Your task to perform on an android device: star an email in the gmail app Image 0: 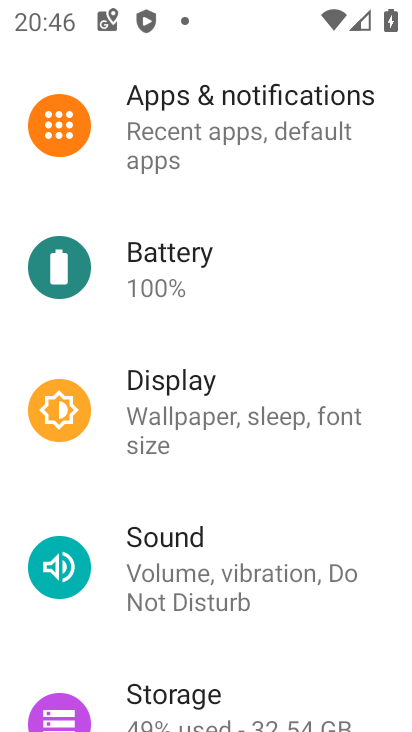
Step 0: press home button
Your task to perform on an android device: star an email in the gmail app Image 1: 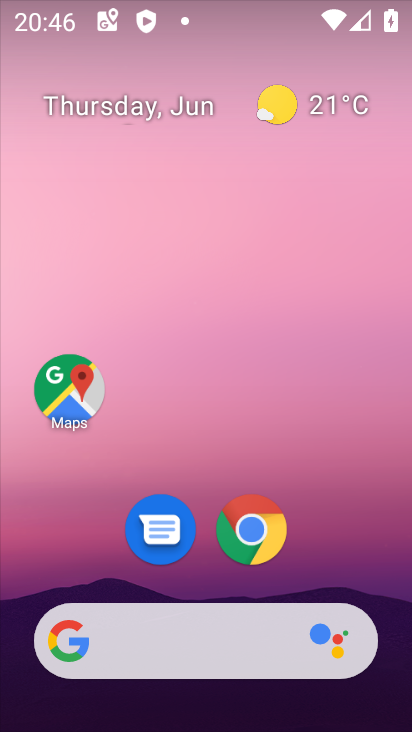
Step 1: drag from (343, 535) to (191, 73)
Your task to perform on an android device: star an email in the gmail app Image 2: 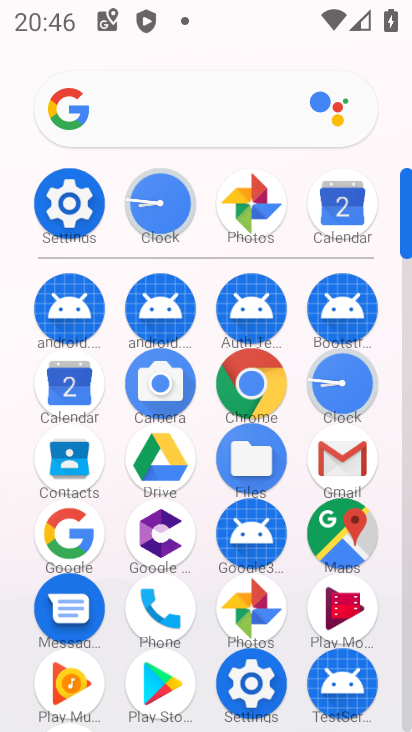
Step 2: click (340, 463)
Your task to perform on an android device: star an email in the gmail app Image 3: 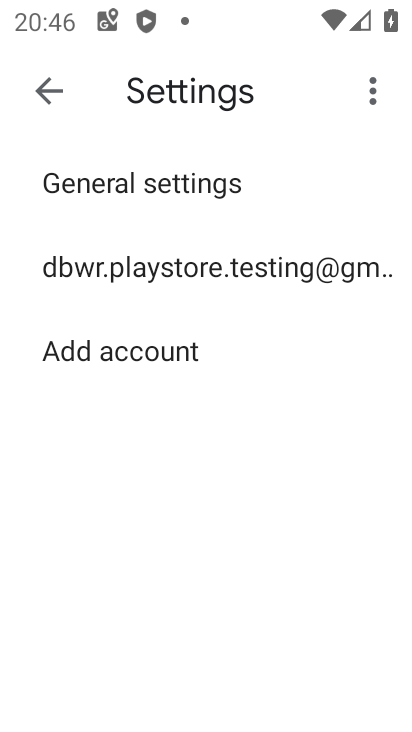
Step 3: click (45, 84)
Your task to perform on an android device: star an email in the gmail app Image 4: 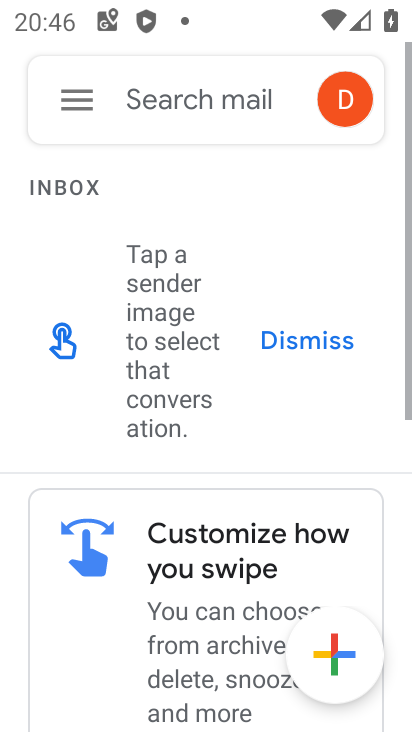
Step 4: click (85, 98)
Your task to perform on an android device: star an email in the gmail app Image 5: 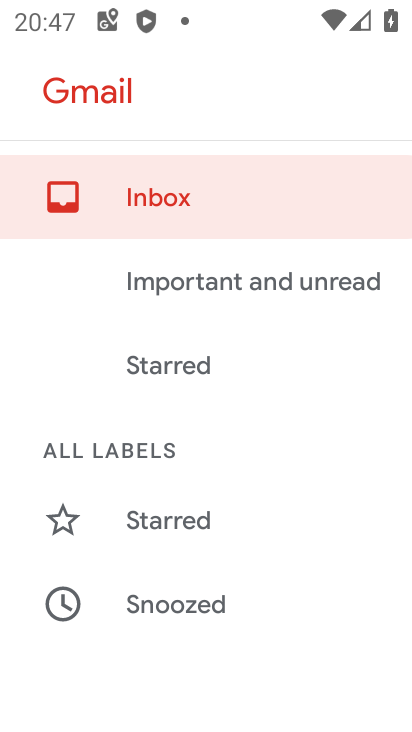
Step 5: drag from (215, 536) to (202, 321)
Your task to perform on an android device: star an email in the gmail app Image 6: 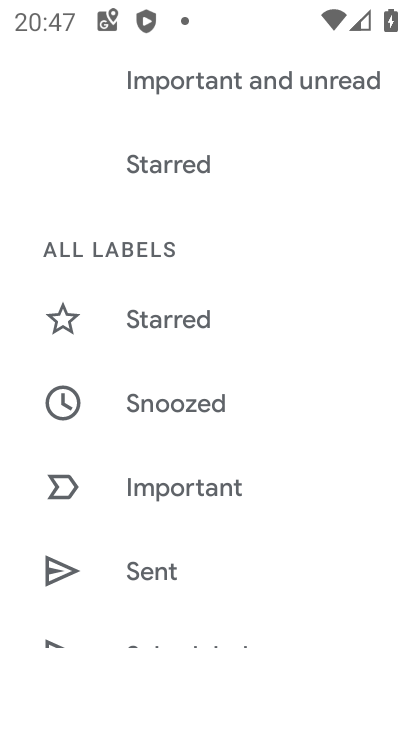
Step 6: drag from (260, 548) to (245, 323)
Your task to perform on an android device: star an email in the gmail app Image 7: 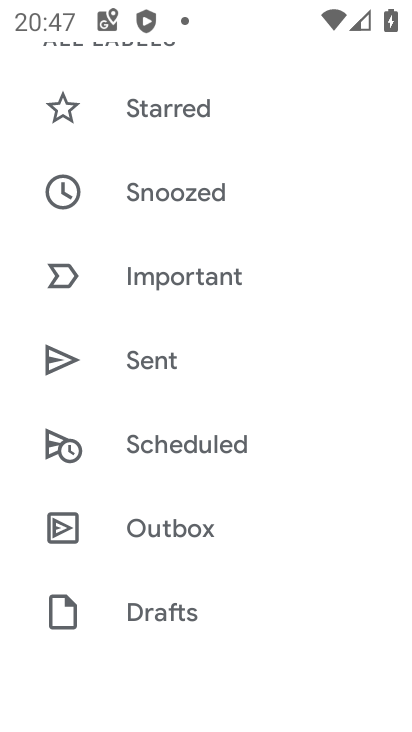
Step 7: drag from (254, 541) to (217, 237)
Your task to perform on an android device: star an email in the gmail app Image 8: 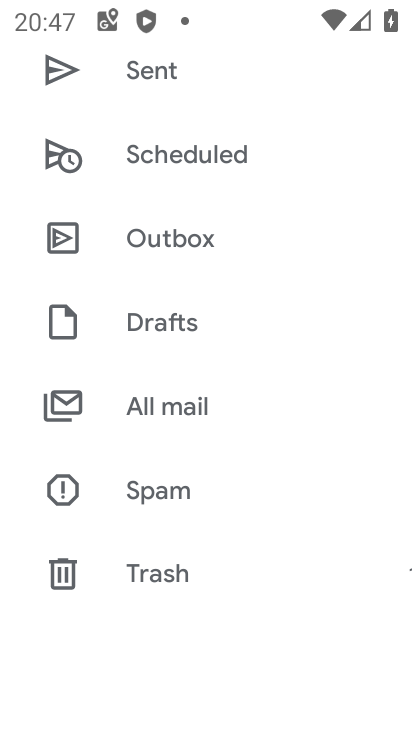
Step 8: click (153, 404)
Your task to perform on an android device: star an email in the gmail app Image 9: 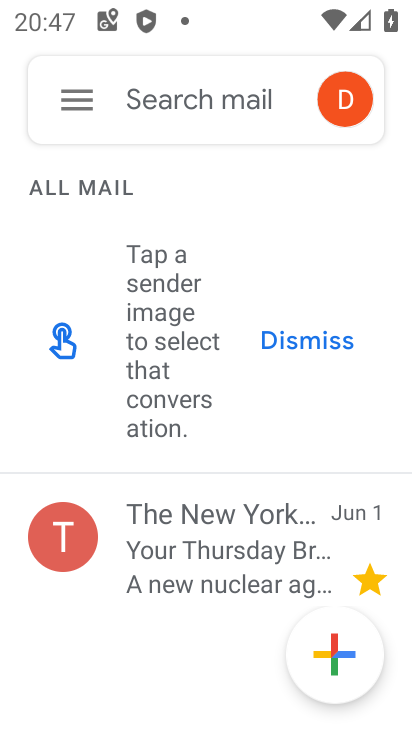
Step 9: task complete